Your task to perform on an android device: refresh tabs in the chrome app Image 0: 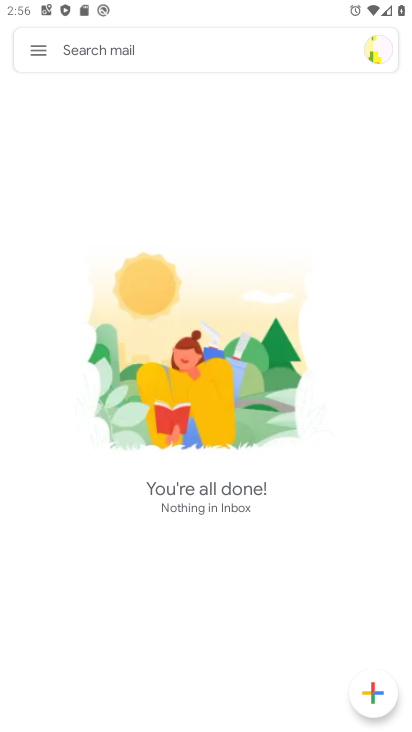
Step 0: press home button
Your task to perform on an android device: refresh tabs in the chrome app Image 1: 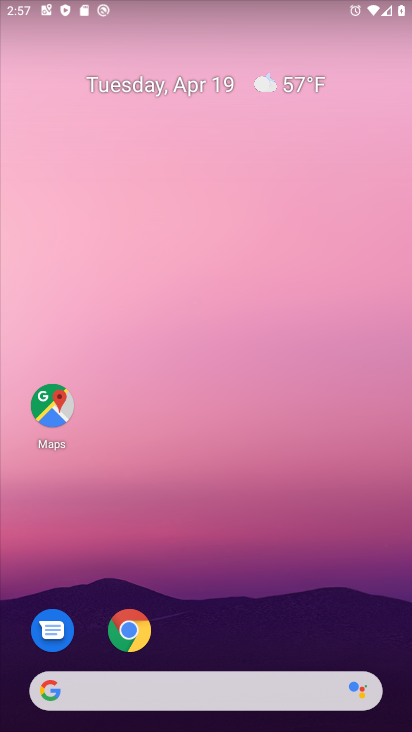
Step 1: click (133, 632)
Your task to perform on an android device: refresh tabs in the chrome app Image 2: 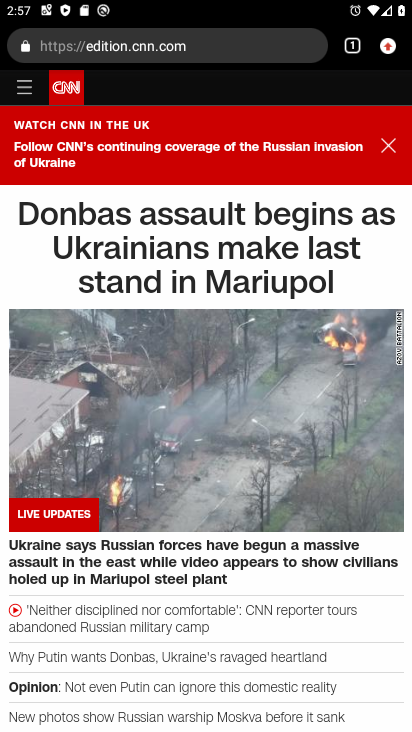
Step 2: click (389, 49)
Your task to perform on an android device: refresh tabs in the chrome app Image 3: 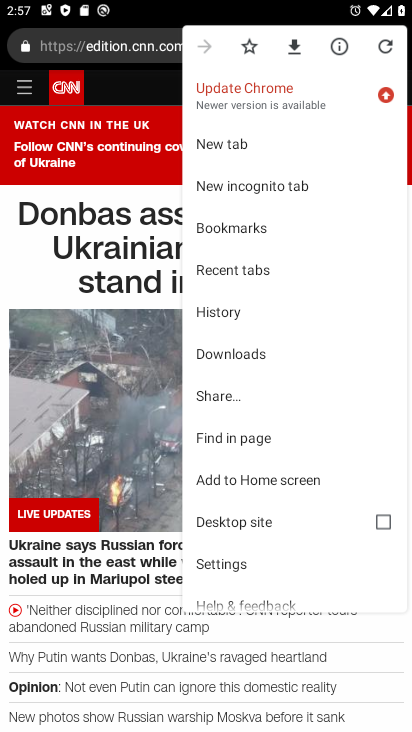
Step 3: click (389, 43)
Your task to perform on an android device: refresh tabs in the chrome app Image 4: 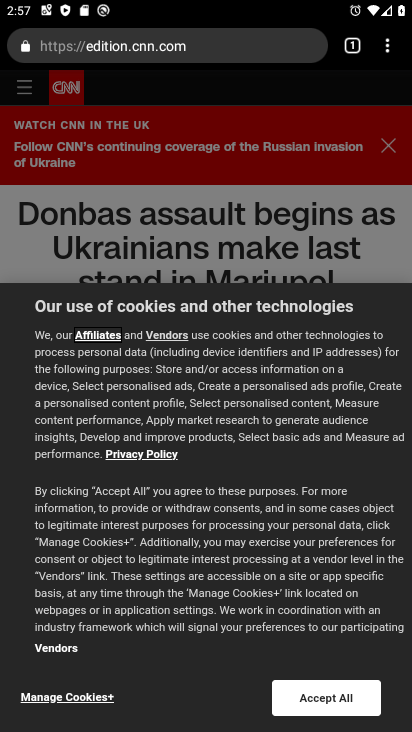
Step 4: task complete